Your task to perform on an android device: Open the stopwatch Image 0: 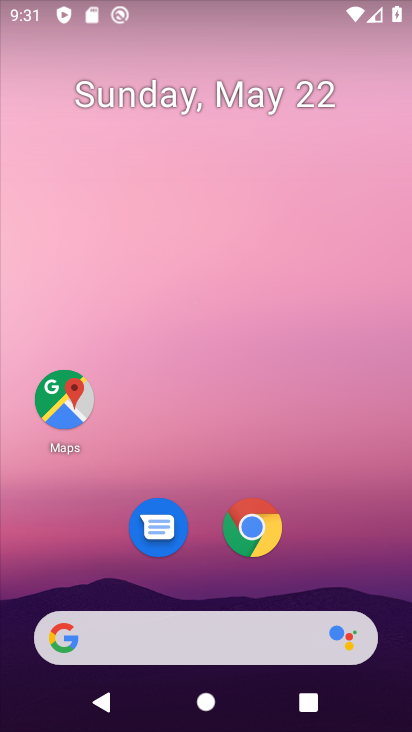
Step 0: drag from (376, 593) to (297, 9)
Your task to perform on an android device: Open the stopwatch Image 1: 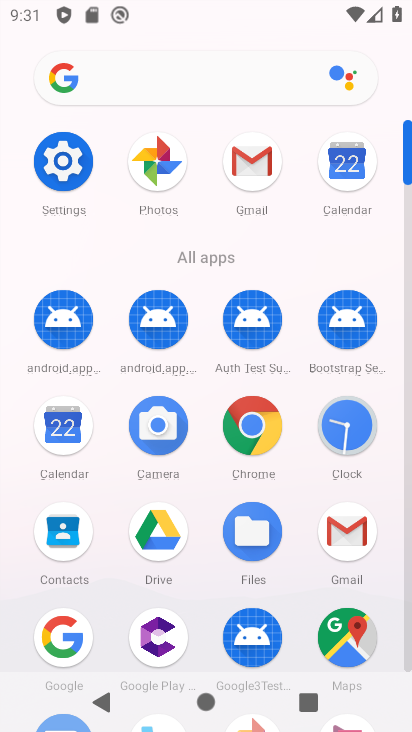
Step 1: click (85, 171)
Your task to perform on an android device: Open the stopwatch Image 2: 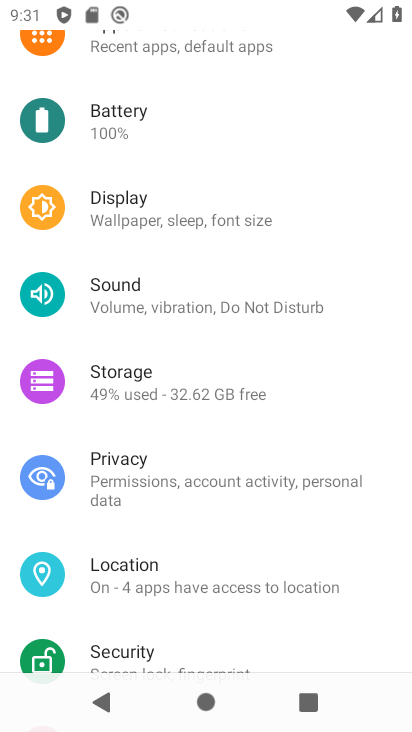
Step 2: press home button
Your task to perform on an android device: Open the stopwatch Image 3: 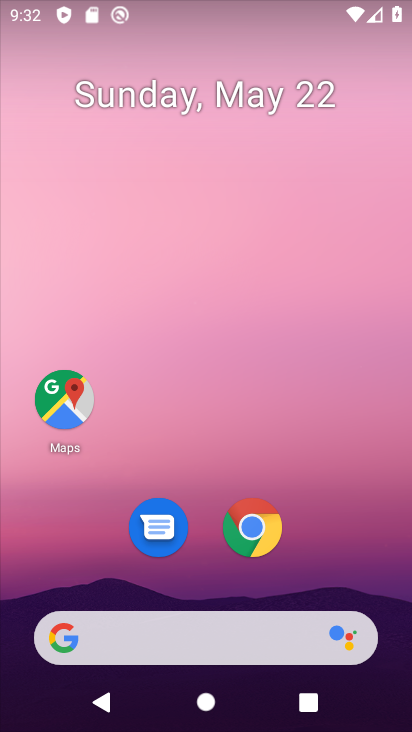
Step 3: drag from (378, 566) to (318, 126)
Your task to perform on an android device: Open the stopwatch Image 4: 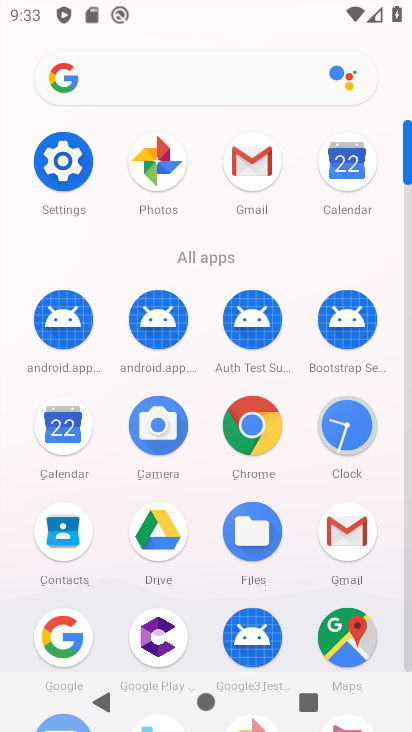
Step 4: click (332, 460)
Your task to perform on an android device: Open the stopwatch Image 5: 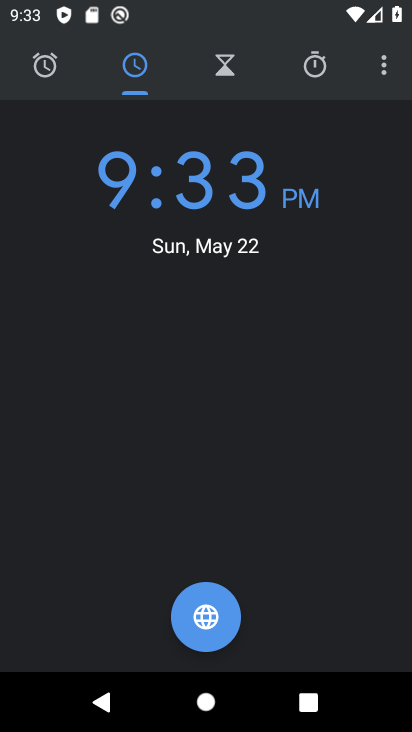
Step 5: click (309, 79)
Your task to perform on an android device: Open the stopwatch Image 6: 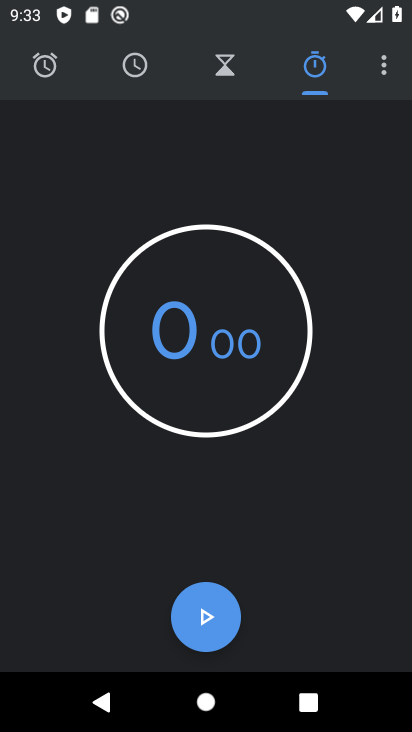
Step 6: task complete